Your task to perform on an android device: change timer sound Image 0: 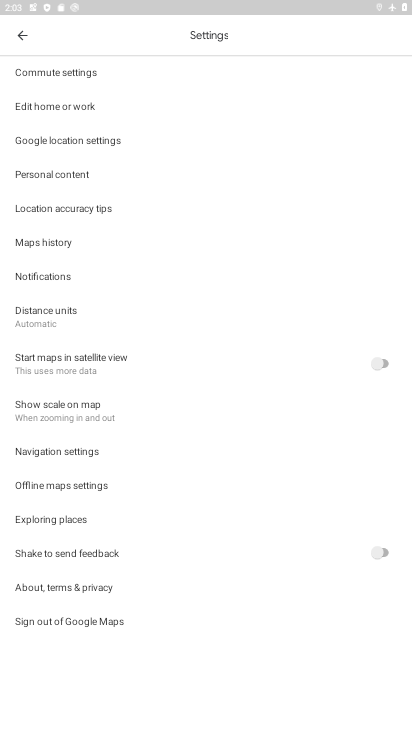
Step 0: press home button
Your task to perform on an android device: change timer sound Image 1: 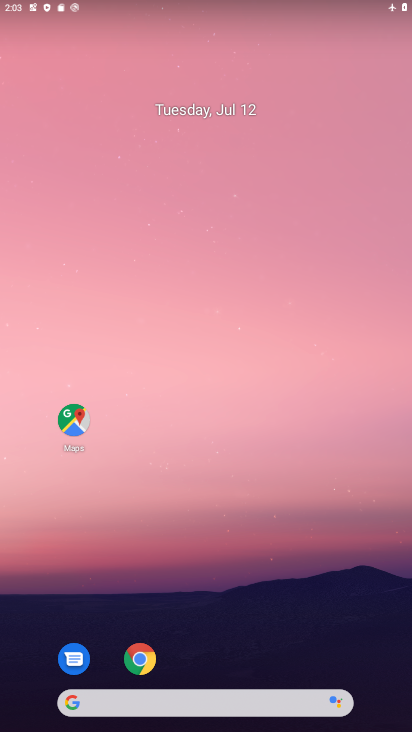
Step 1: drag from (231, 729) to (217, 154)
Your task to perform on an android device: change timer sound Image 2: 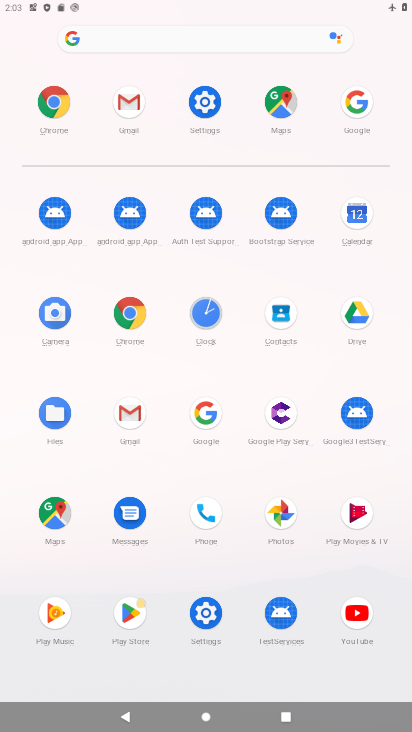
Step 2: click (210, 99)
Your task to perform on an android device: change timer sound Image 3: 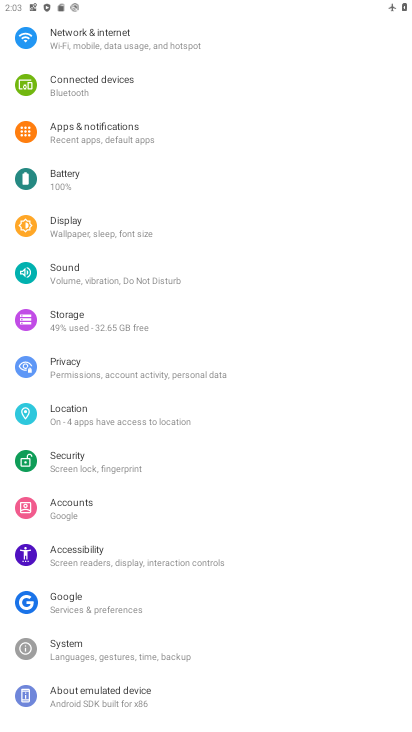
Step 3: press back button
Your task to perform on an android device: change timer sound Image 4: 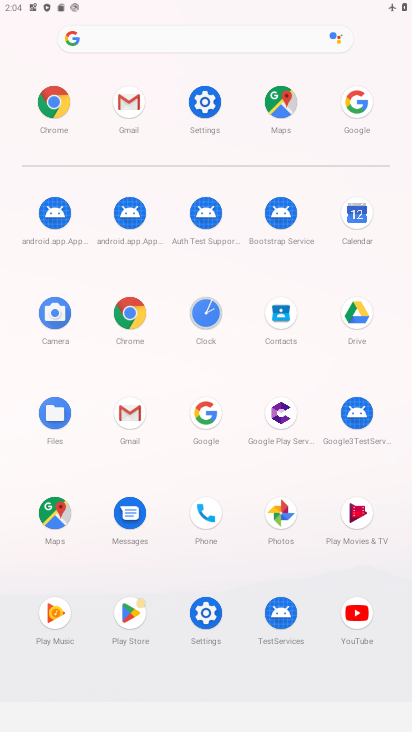
Step 4: click (206, 313)
Your task to perform on an android device: change timer sound Image 5: 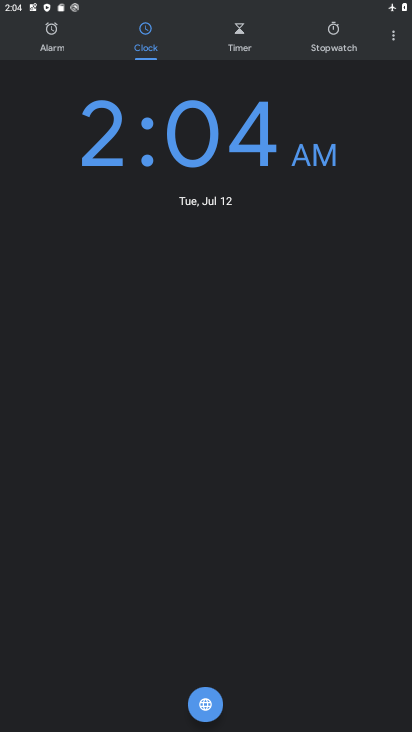
Step 5: click (394, 40)
Your task to perform on an android device: change timer sound Image 6: 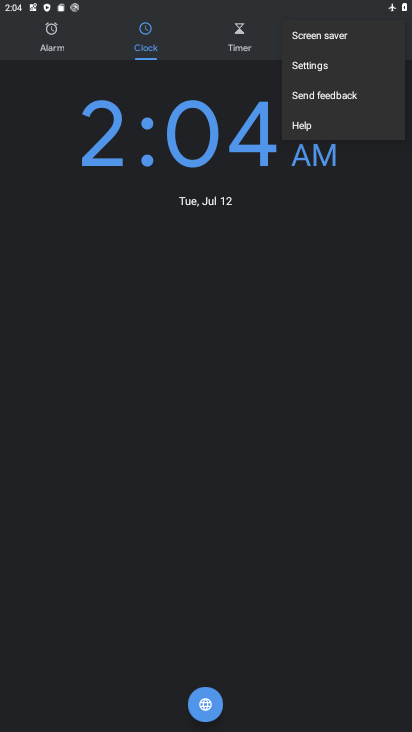
Step 6: click (320, 64)
Your task to perform on an android device: change timer sound Image 7: 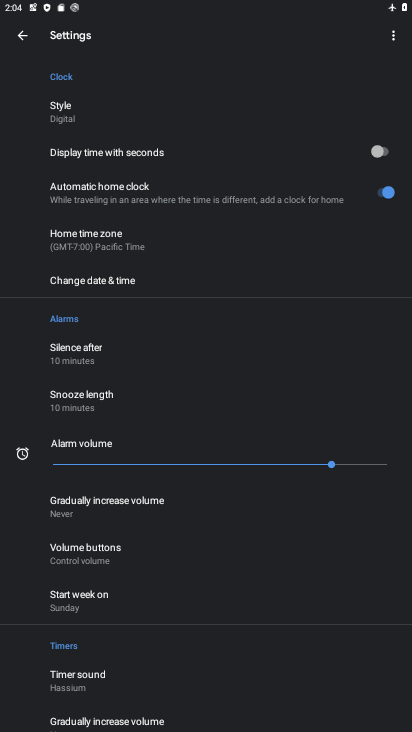
Step 7: click (89, 678)
Your task to perform on an android device: change timer sound Image 8: 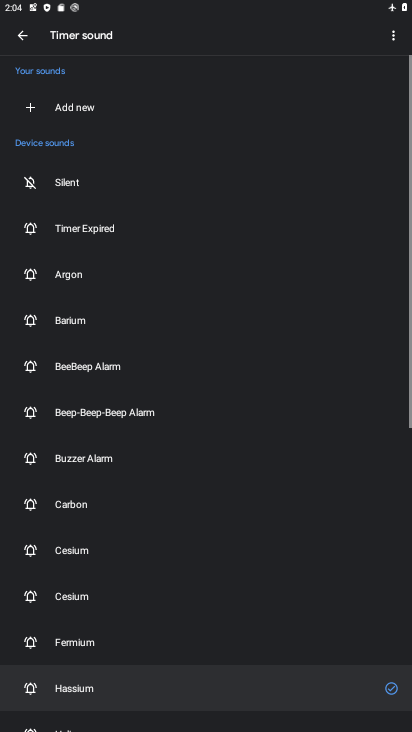
Step 8: click (66, 591)
Your task to perform on an android device: change timer sound Image 9: 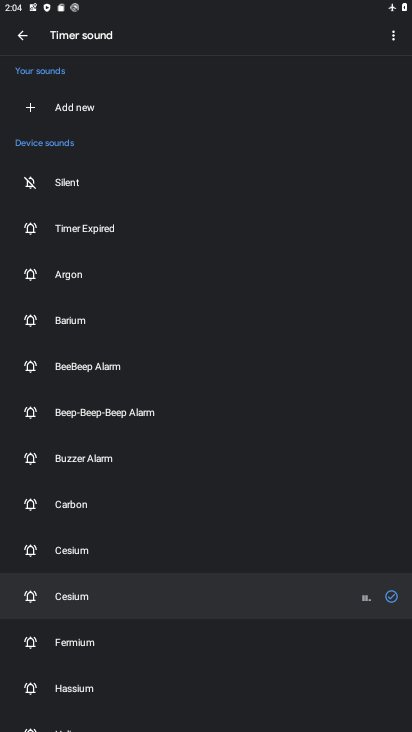
Step 9: task complete